Your task to perform on an android device: stop showing notifications on the lock screen Image 0: 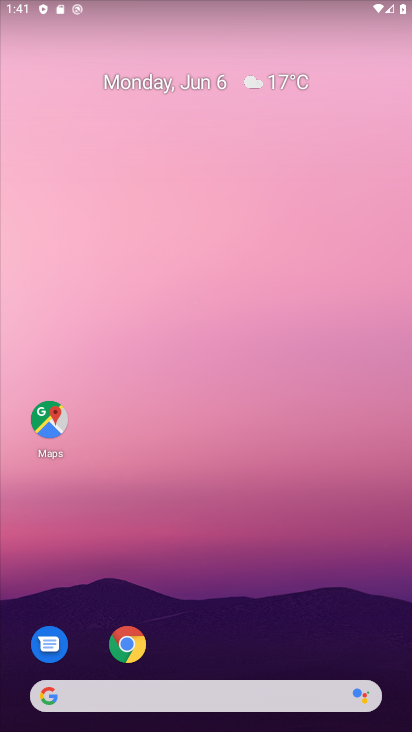
Step 0: drag from (127, 671) to (239, 10)
Your task to perform on an android device: stop showing notifications on the lock screen Image 1: 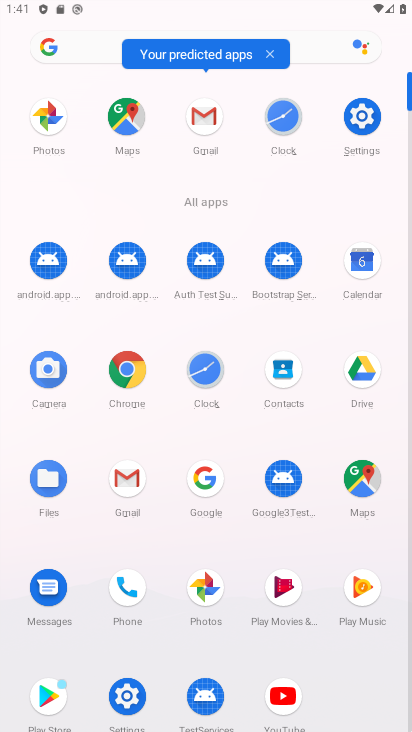
Step 1: click (367, 127)
Your task to perform on an android device: stop showing notifications on the lock screen Image 2: 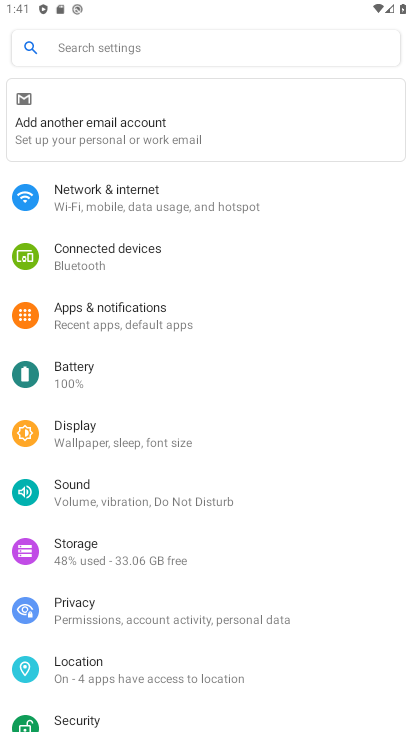
Step 2: click (106, 328)
Your task to perform on an android device: stop showing notifications on the lock screen Image 3: 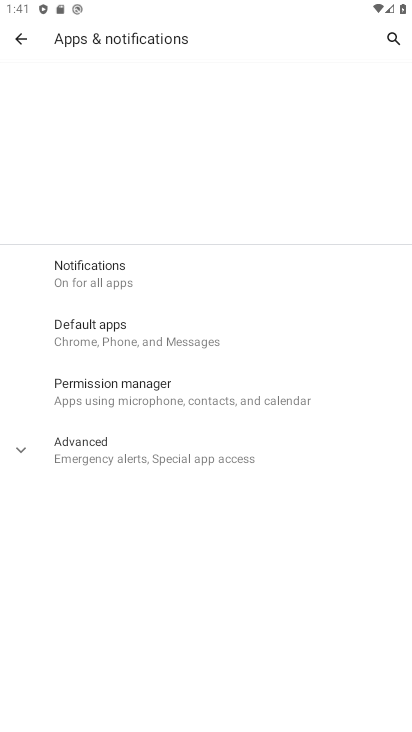
Step 3: click (140, 284)
Your task to perform on an android device: stop showing notifications on the lock screen Image 4: 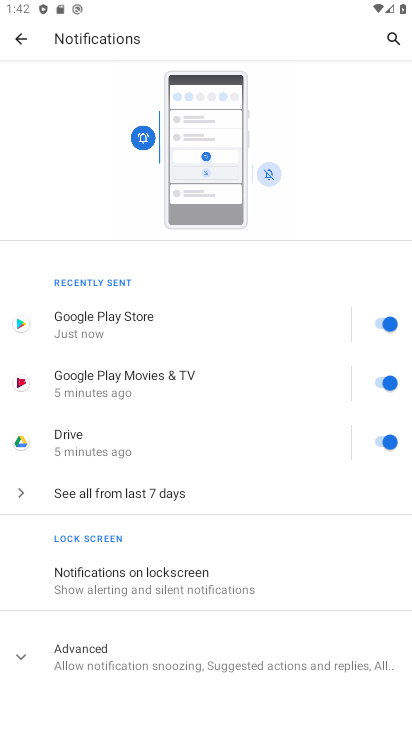
Step 4: click (178, 590)
Your task to perform on an android device: stop showing notifications on the lock screen Image 5: 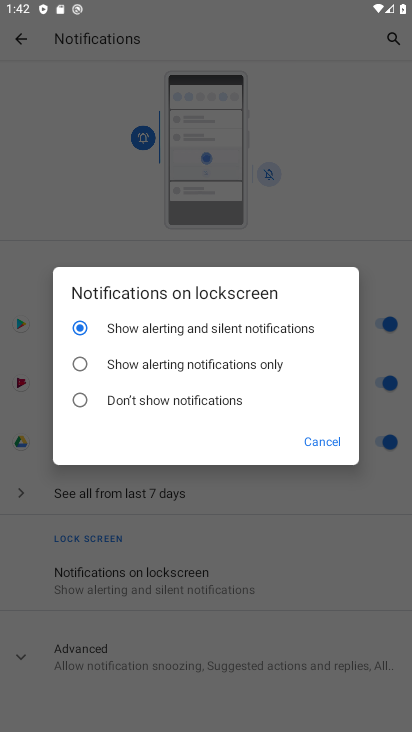
Step 5: task complete